Your task to perform on an android device: Go to internet settings Image 0: 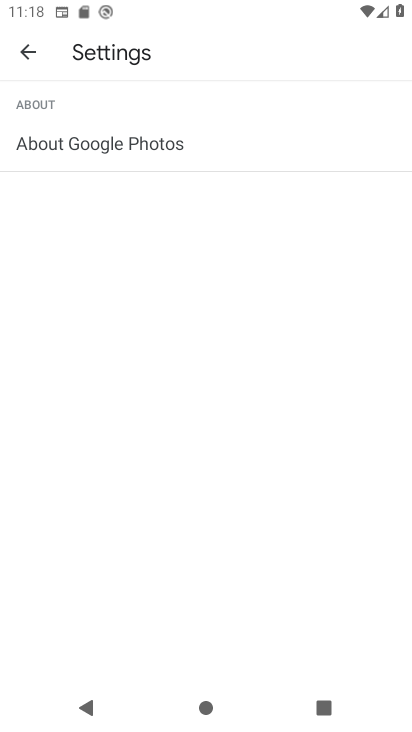
Step 0: drag from (144, 274) to (120, 719)
Your task to perform on an android device: Go to internet settings Image 1: 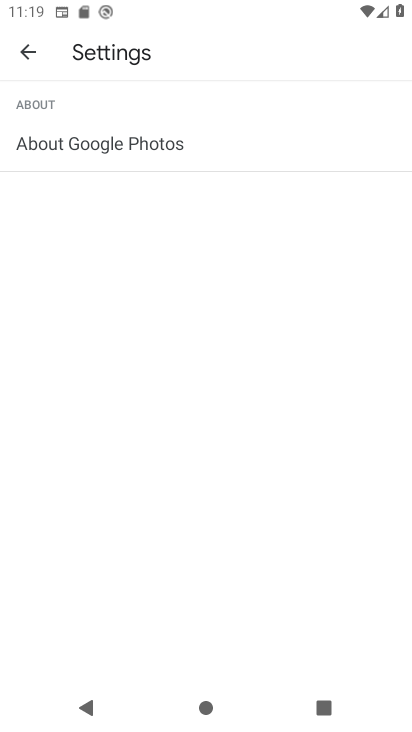
Step 1: drag from (275, 12) to (109, 726)
Your task to perform on an android device: Go to internet settings Image 2: 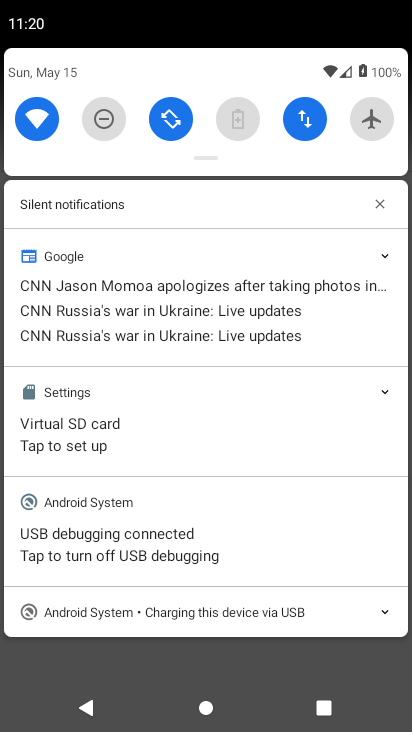
Step 2: click (295, 127)
Your task to perform on an android device: Go to internet settings Image 3: 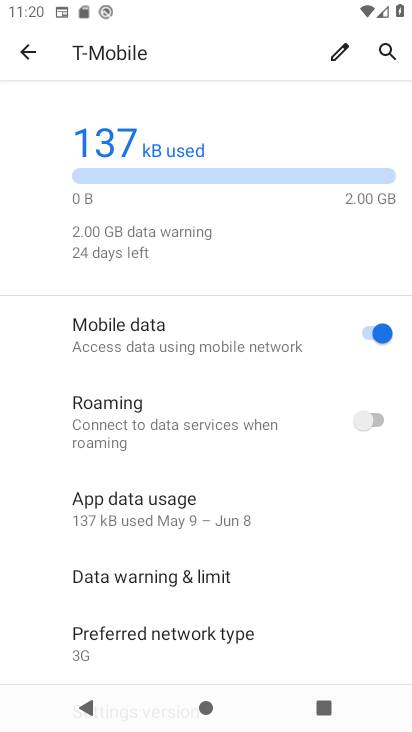
Step 3: task complete